Your task to perform on an android device: Show me the alarms in the clock app Image 0: 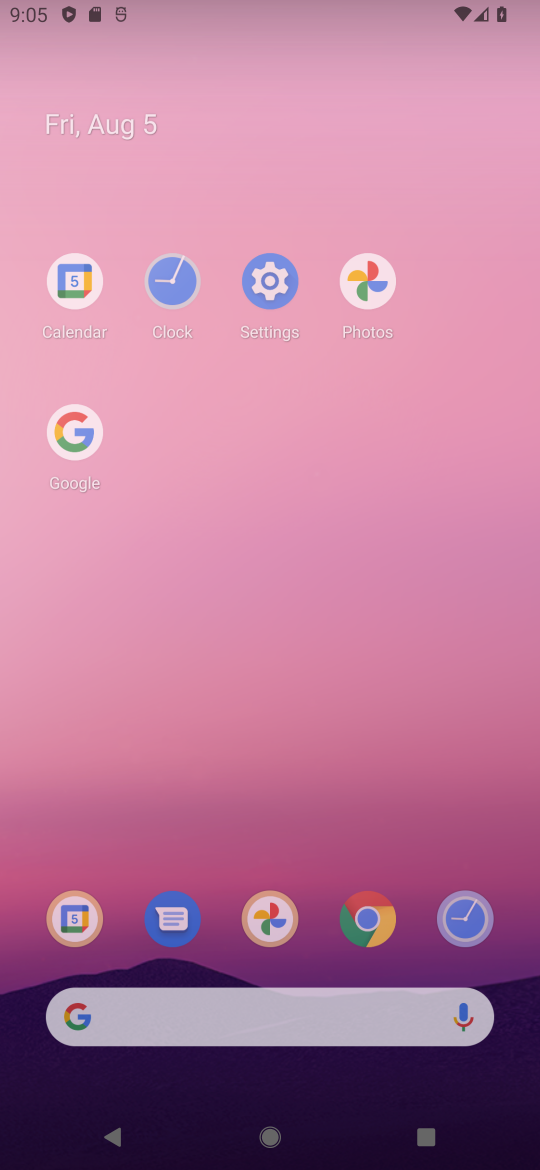
Step 0: drag from (439, 768) to (440, 183)
Your task to perform on an android device: Show me the alarms in the clock app Image 1: 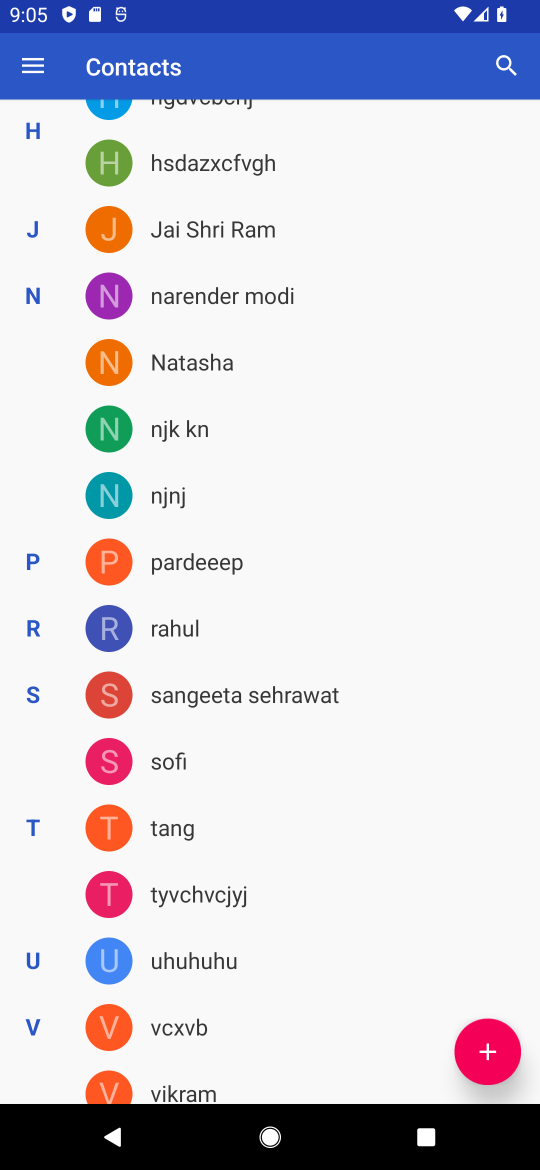
Step 1: press back button
Your task to perform on an android device: Show me the alarms in the clock app Image 2: 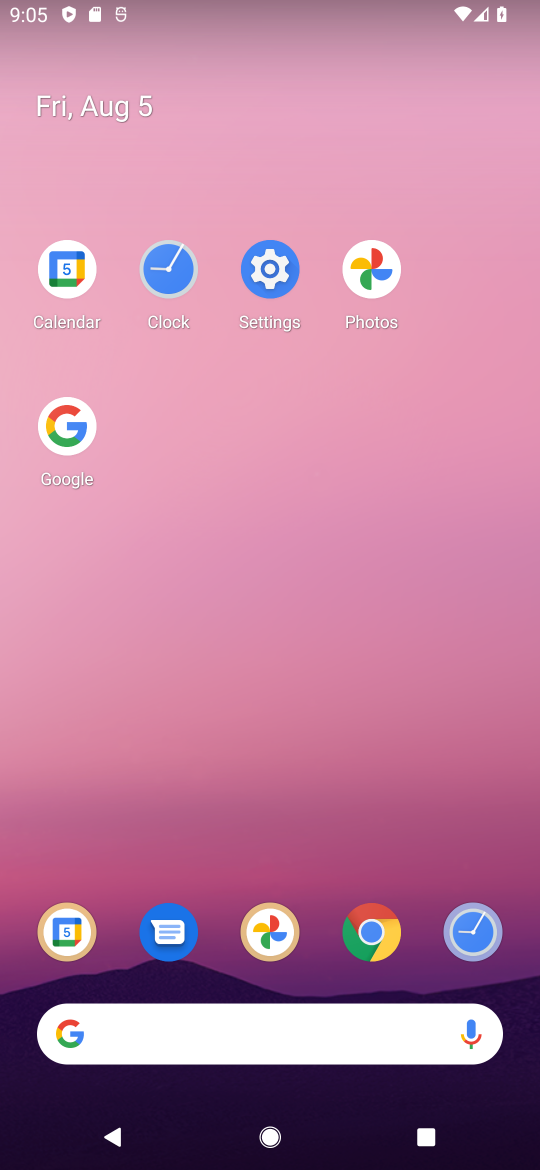
Step 2: click (171, 252)
Your task to perform on an android device: Show me the alarms in the clock app Image 3: 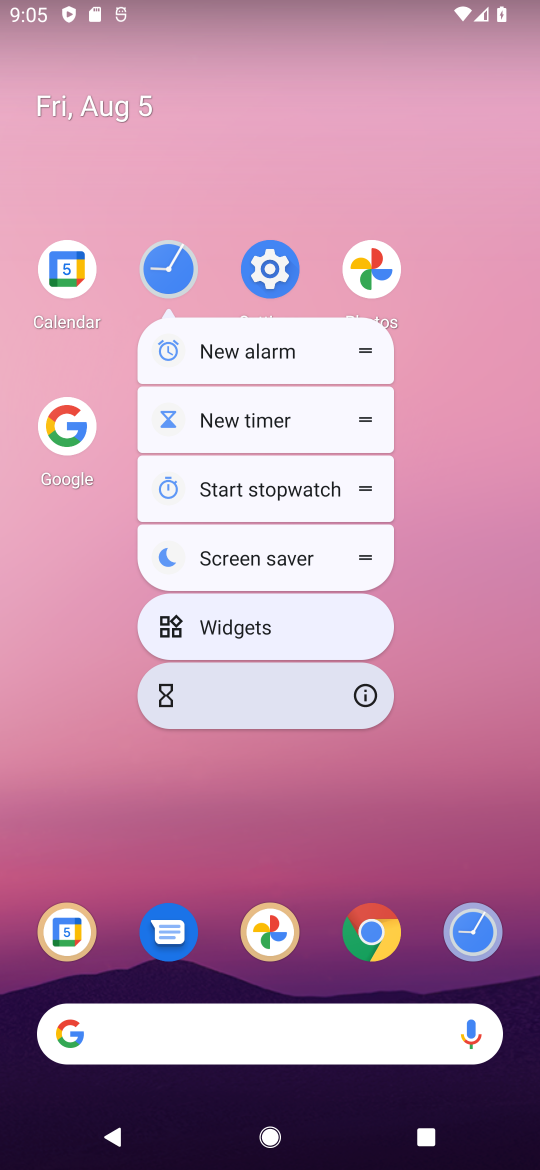
Step 3: click (167, 285)
Your task to perform on an android device: Show me the alarms in the clock app Image 4: 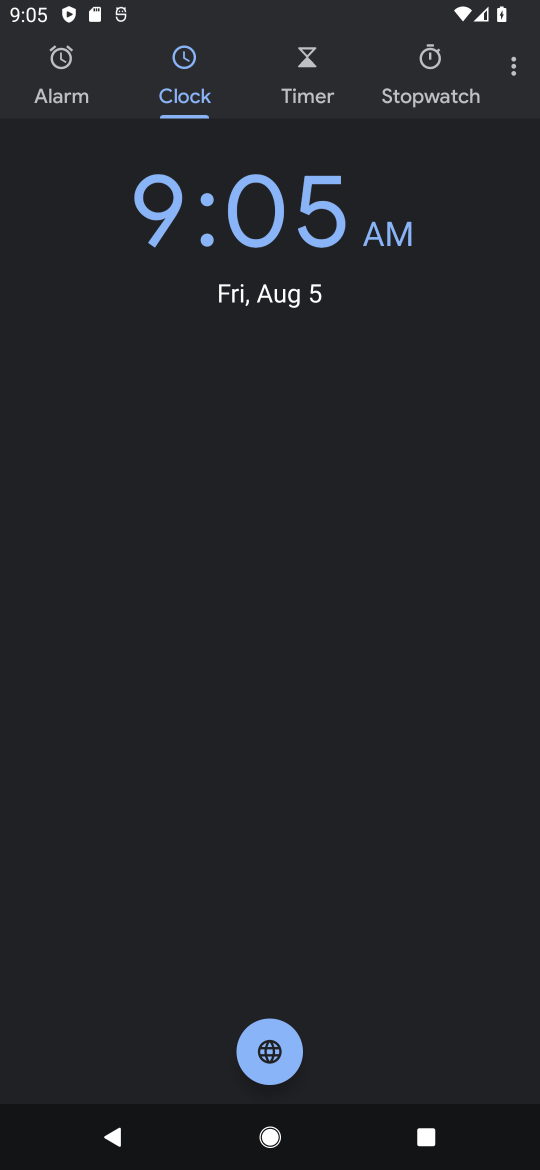
Step 4: click (42, 102)
Your task to perform on an android device: Show me the alarms in the clock app Image 5: 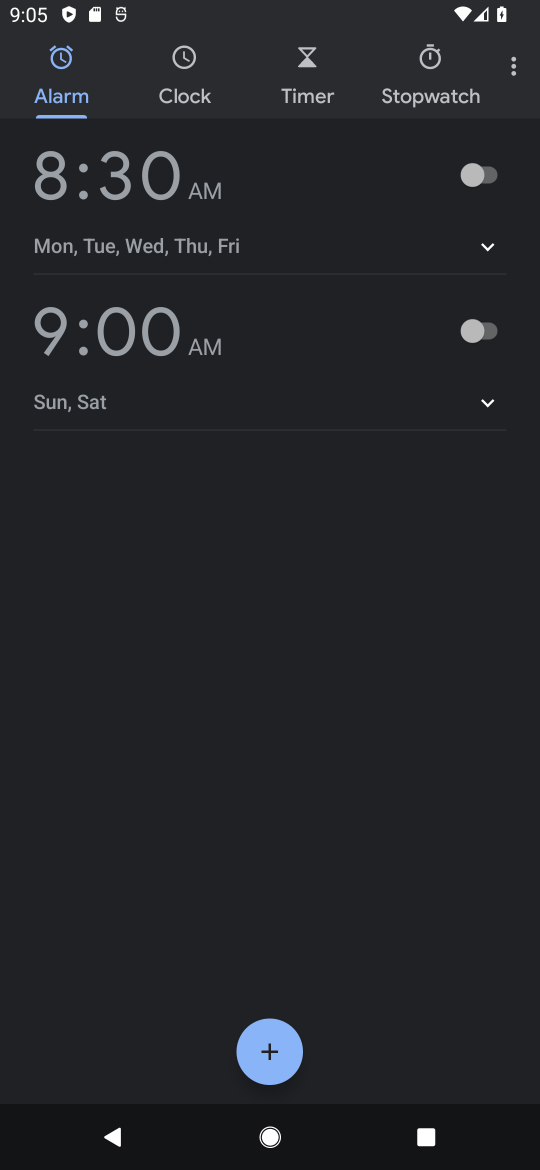
Step 5: task complete